Your task to perform on an android device: Go to sound settings Image 0: 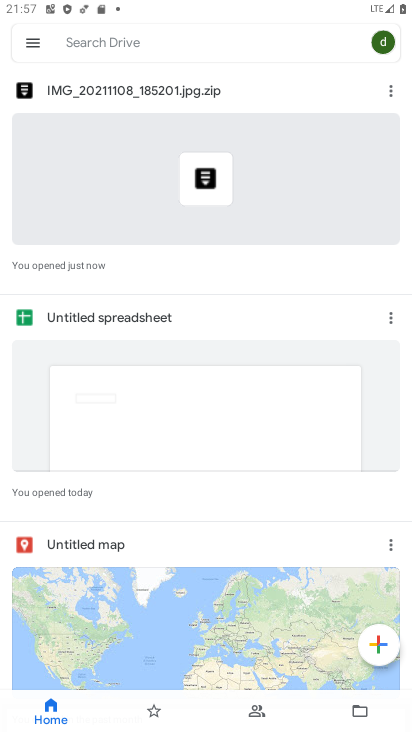
Step 0: press back button
Your task to perform on an android device: Go to sound settings Image 1: 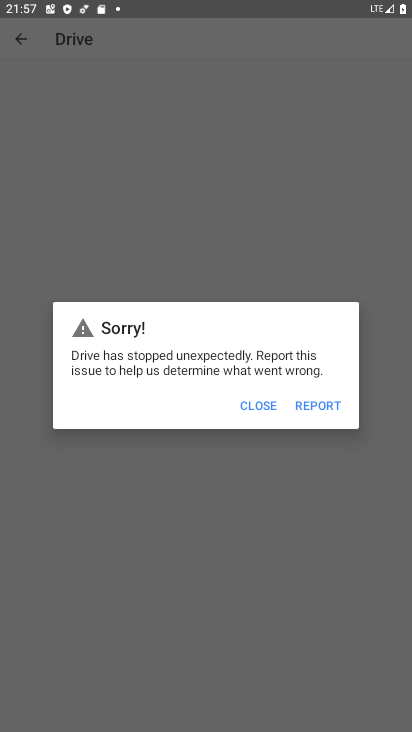
Step 1: press home button
Your task to perform on an android device: Go to sound settings Image 2: 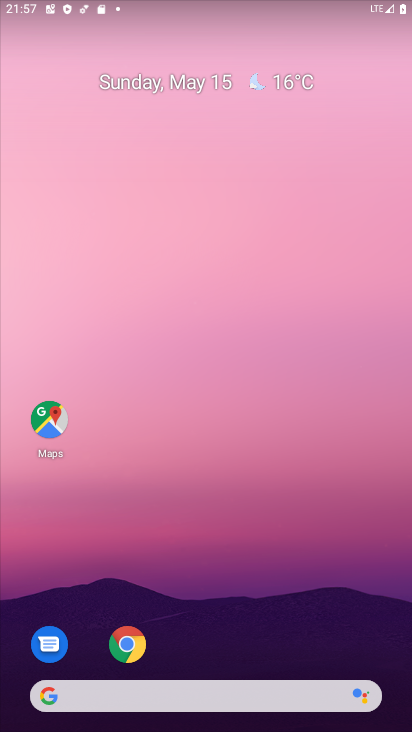
Step 2: drag from (208, 600) to (200, 89)
Your task to perform on an android device: Go to sound settings Image 3: 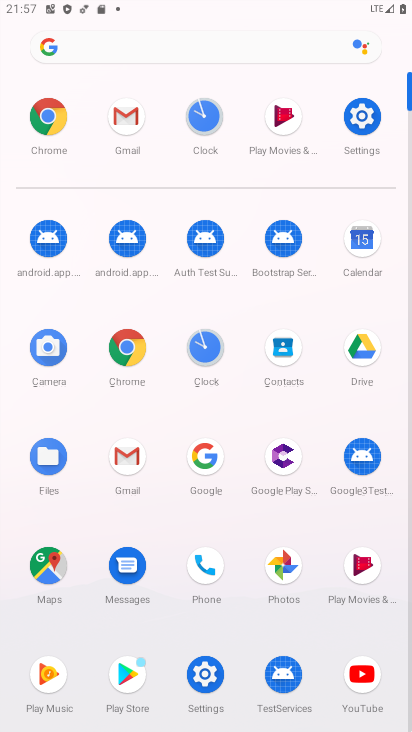
Step 3: click (360, 117)
Your task to perform on an android device: Go to sound settings Image 4: 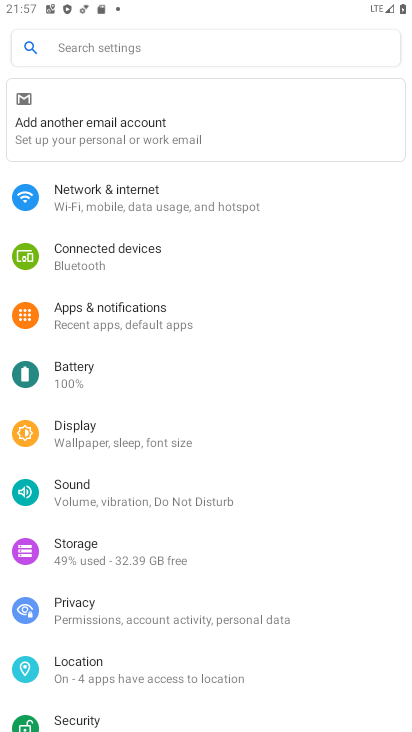
Step 4: click (86, 496)
Your task to perform on an android device: Go to sound settings Image 5: 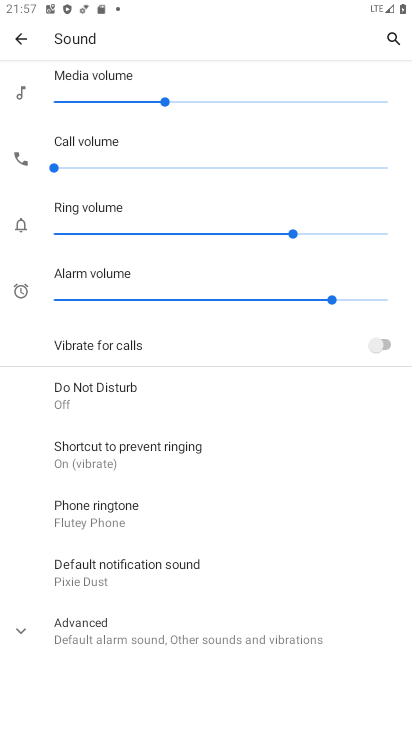
Step 5: task complete